Your task to perform on an android device: turn off priority inbox in the gmail app Image 0: 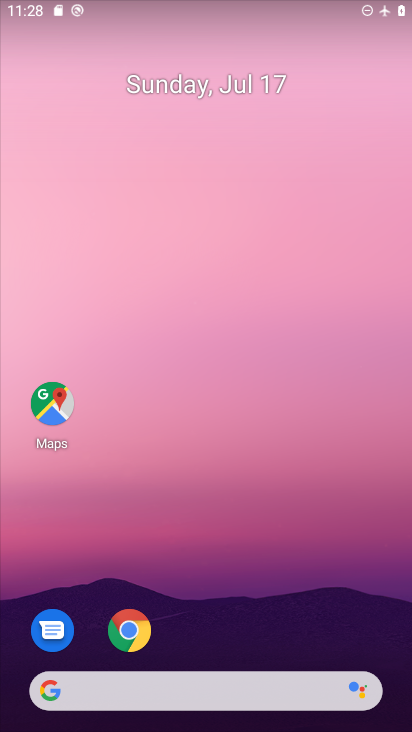
Step 0: drag from (193, 532) to (226, 128)
Your task to perform on an android device: turn off priority inbox in the gmail app Image 1: 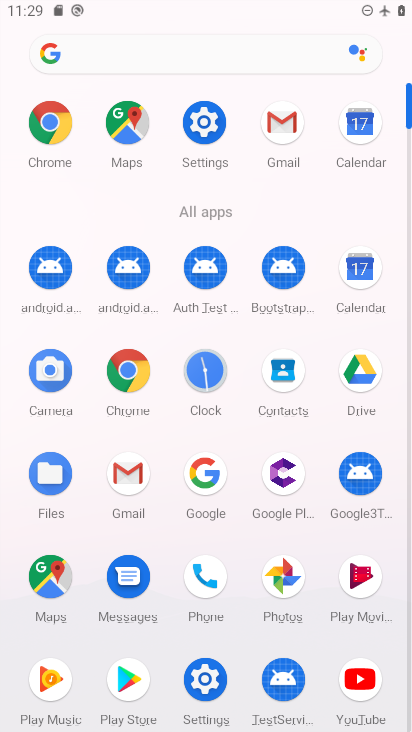
Step 1: click (277, 132)
Your task to perform on an android device: turn off priority inbox in the gmail app Image 2: 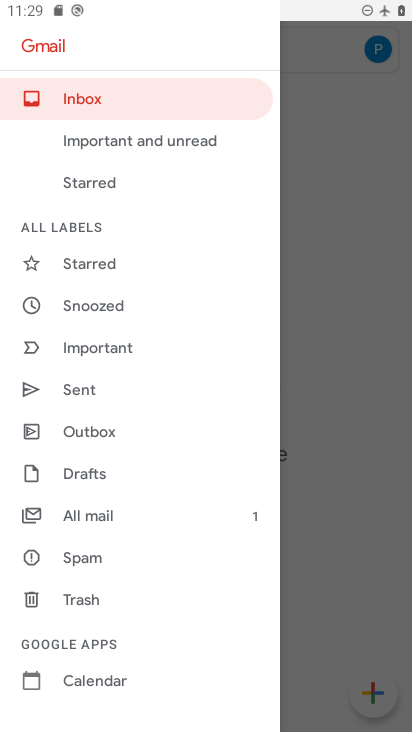
Step 2: drag from (112, 641) to (112, 394)
Your task to perform on an android device: turn off priority inbox in the gmail app Image 3: 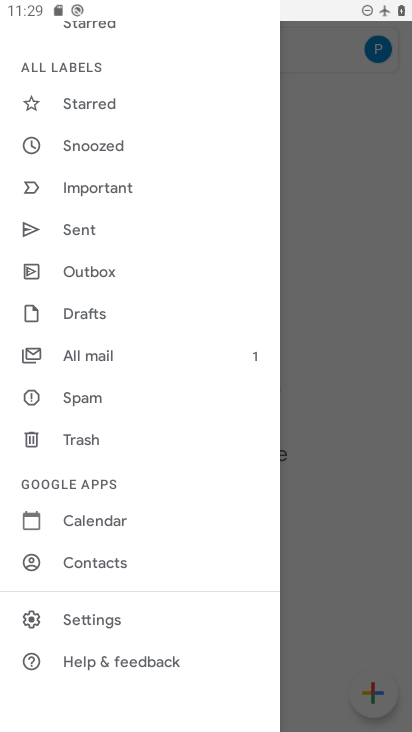
Step 3: click (79, 618)
Your task to perform on an android device: turn off priority inbox in the gmail app Image 4: 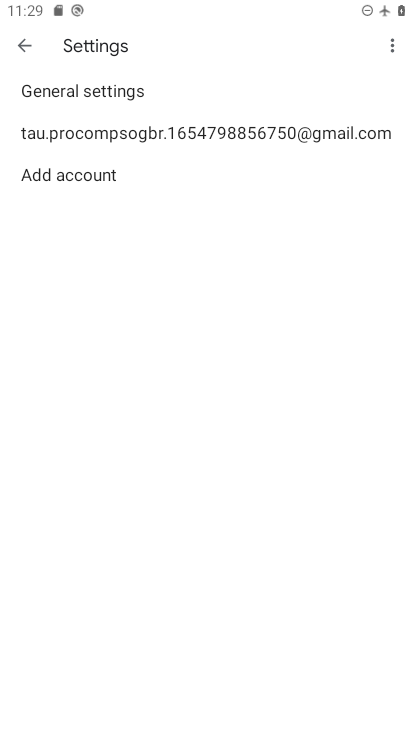
Step 4: click (195, 150)
Your task to perform on an android device: turn off priority inbox in the gmail app Image 5: 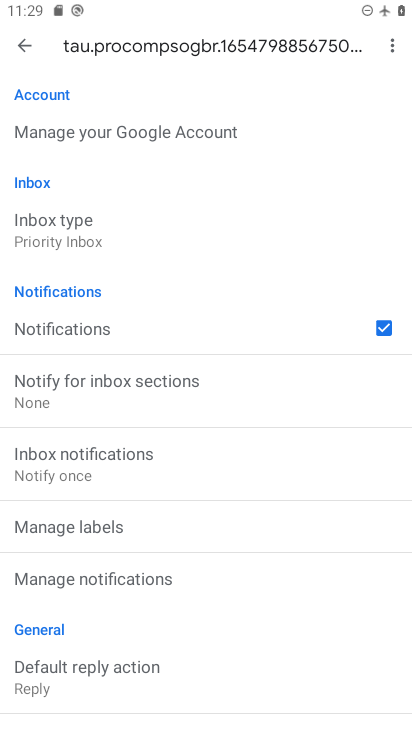
Step 5: click (79, 239)
Your task to perform on an android device: turn off priority inbox in the gmail app Image 6: 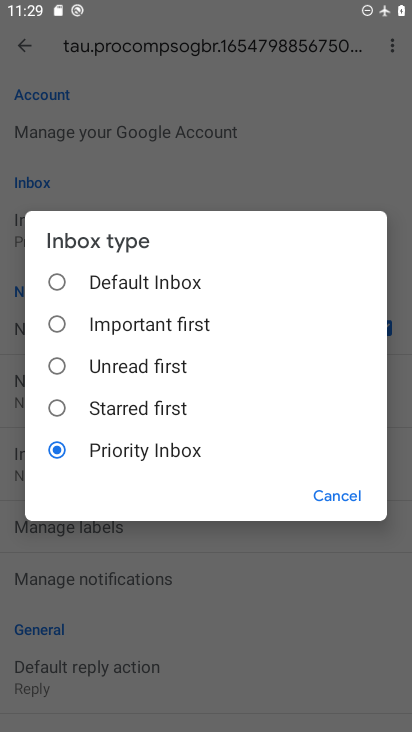
Step 6: click (55, 281)
Your task to perform on an android device: turn off priority inbox in the gmail app Image 7: 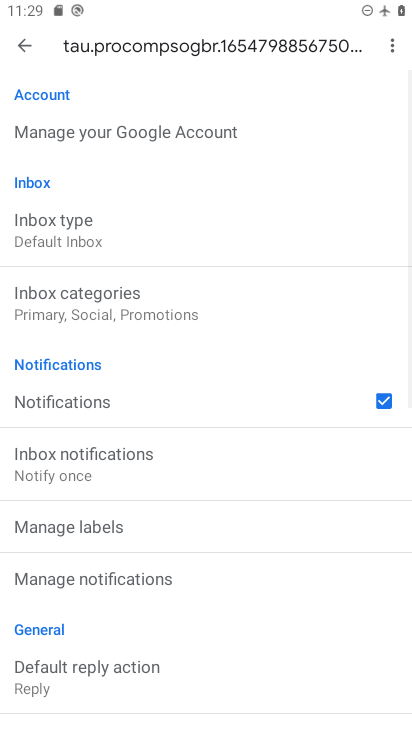
Step 7: task complete